Your task to perform on an android device: refresh tabs in the chrome app Image 0: 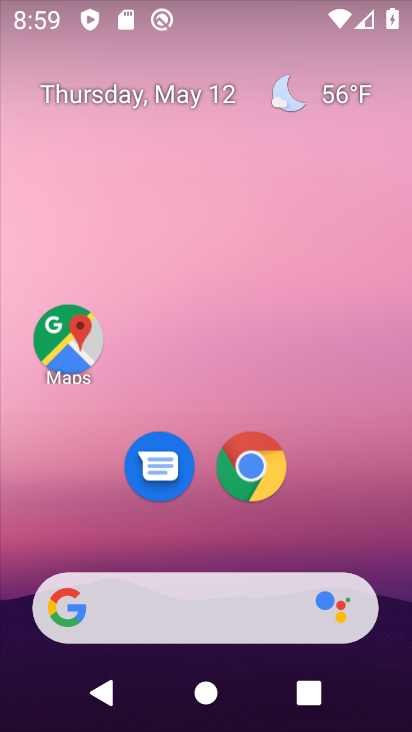
Step 0: click (252, 484)
Your task to perform on an android device: refresh tabs in the chrome app Image 1: 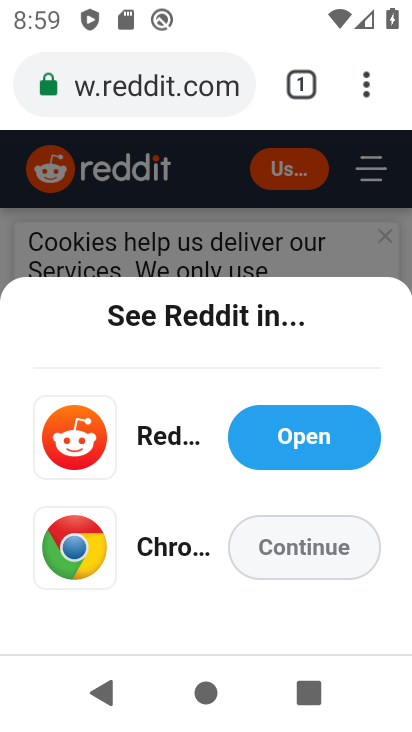
Step 1: click (372, 99)
Your task to perform on an android device: refresh tabs in the chrome app Image 2: 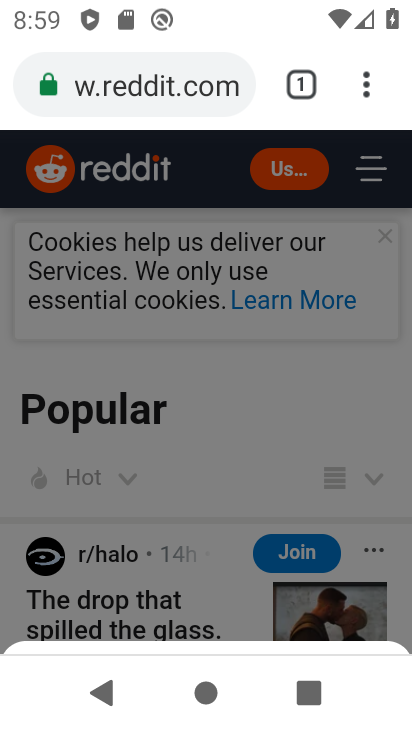
Step 2: task complete